Your task to perform on an android device: Show me productivity apps on the Play Store Image 0: 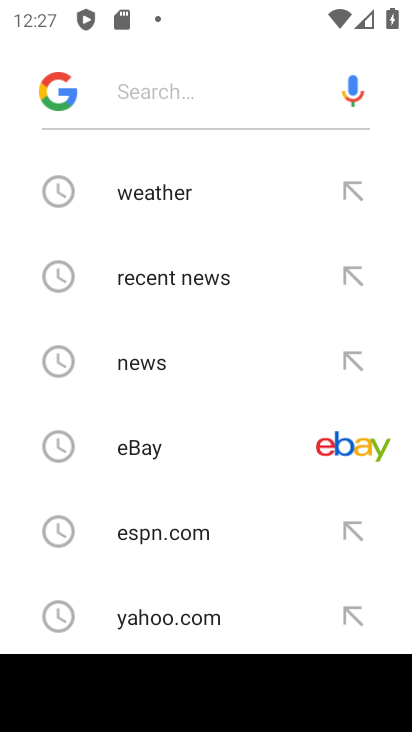
Step 0: press home button
Your task to perform on an android device: Show me productivity apps on the Play Store Image 1: 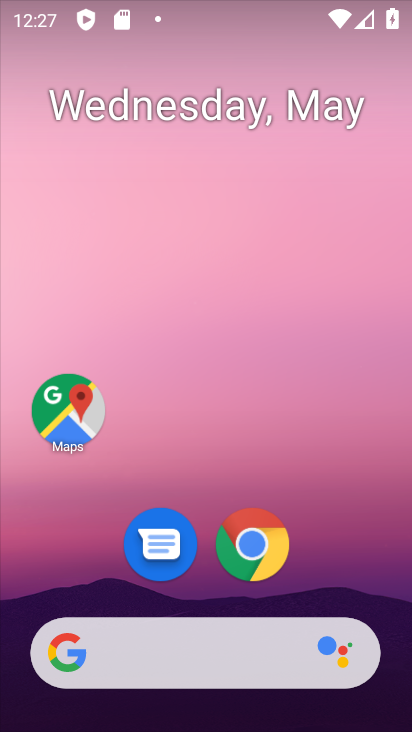
Step 1: drag from (209, 580) to (212, 40)
Your task to perform on an android device: Show me productivity apps on the Play Store Image 2: 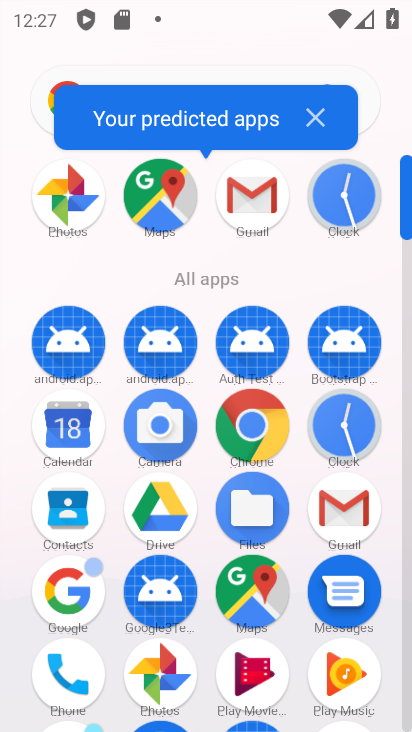
Step 2: drag from (117, 603) to (116, 365)
Your task to perform on an android device: Show me productivity apps on the Play Store Image 3: 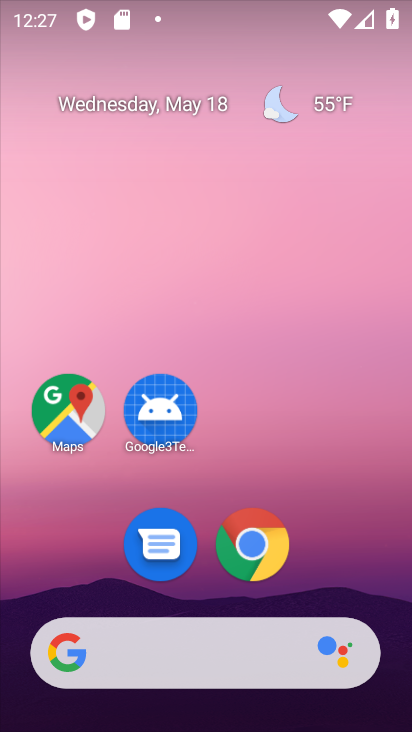
Step 3: drag from (205, 577) to (229, 75)
Your task to perform on an android device: Show me productivity apps on the Play Store Image 4: 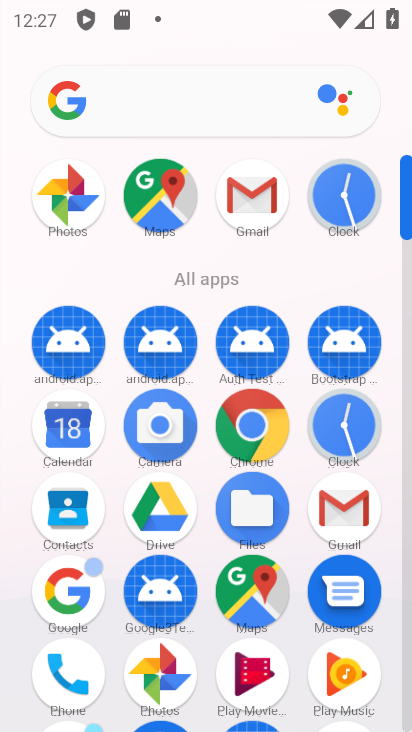
Step 4: drag from (203, 604) to (260, 244)
Your task to perform on an android device: Show me productivity apps on the Play Store Image 5: 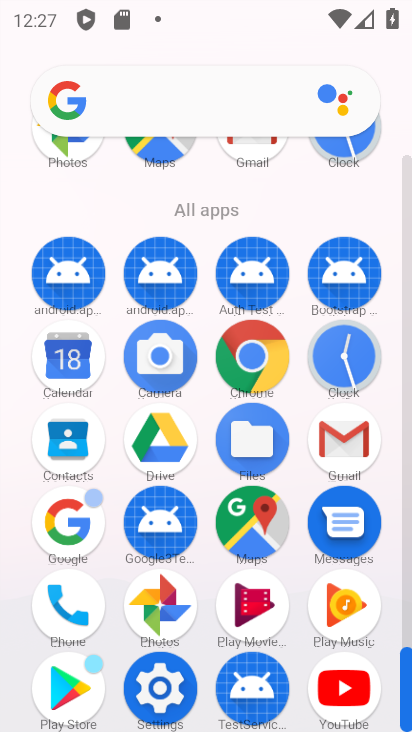
Step 5: click (63, 686)
Your task to perform on an android device: Show me productivity apps on the Play Store Image 6: 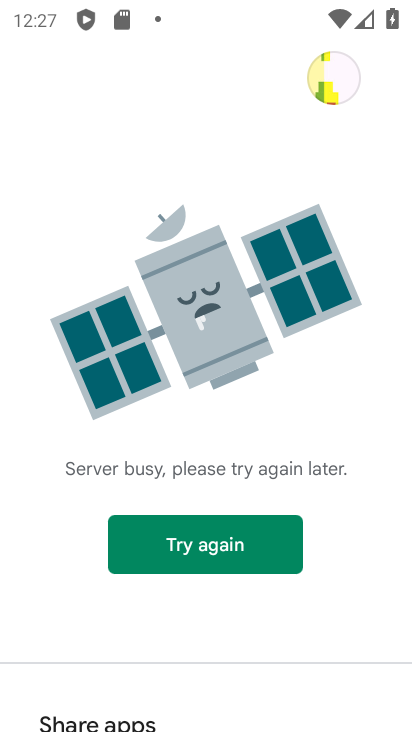
Step 6: click (195, 542)
Your task to perform on an android device: Show me productivity apps on the Play Store Image 7: 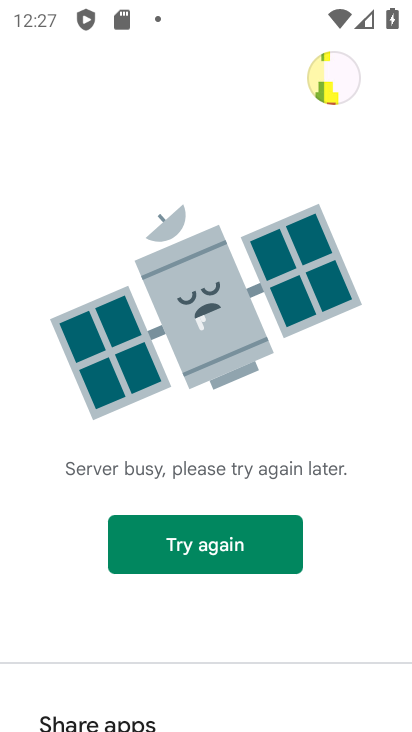
Step 7: click (176, 535)
Your task to perform on an android device: Show me productivity apps on the Play Store Image 8: 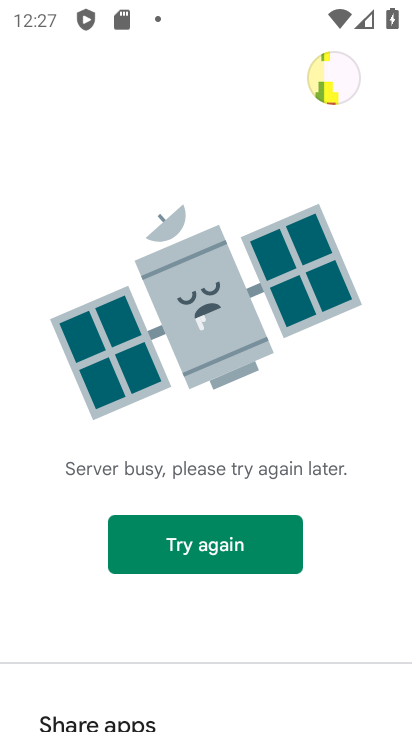
Step 8: click (183, 557)
Your task to perform on an android device: Show me productivity apps on the Play Store Image 9: 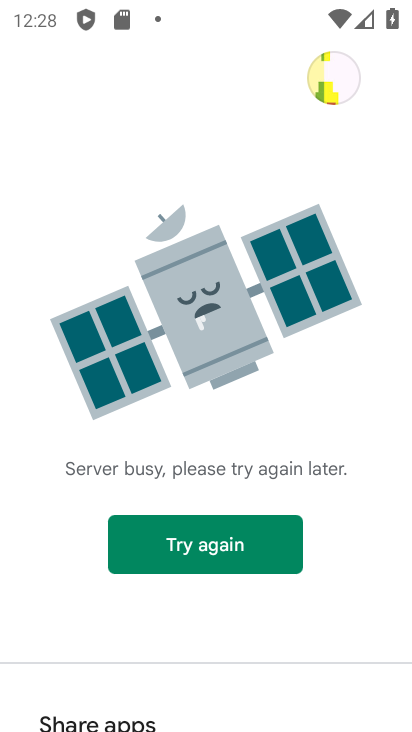
Step 9: task complete